Your task to perform on an android device: open app "Google Duo" Image 0: 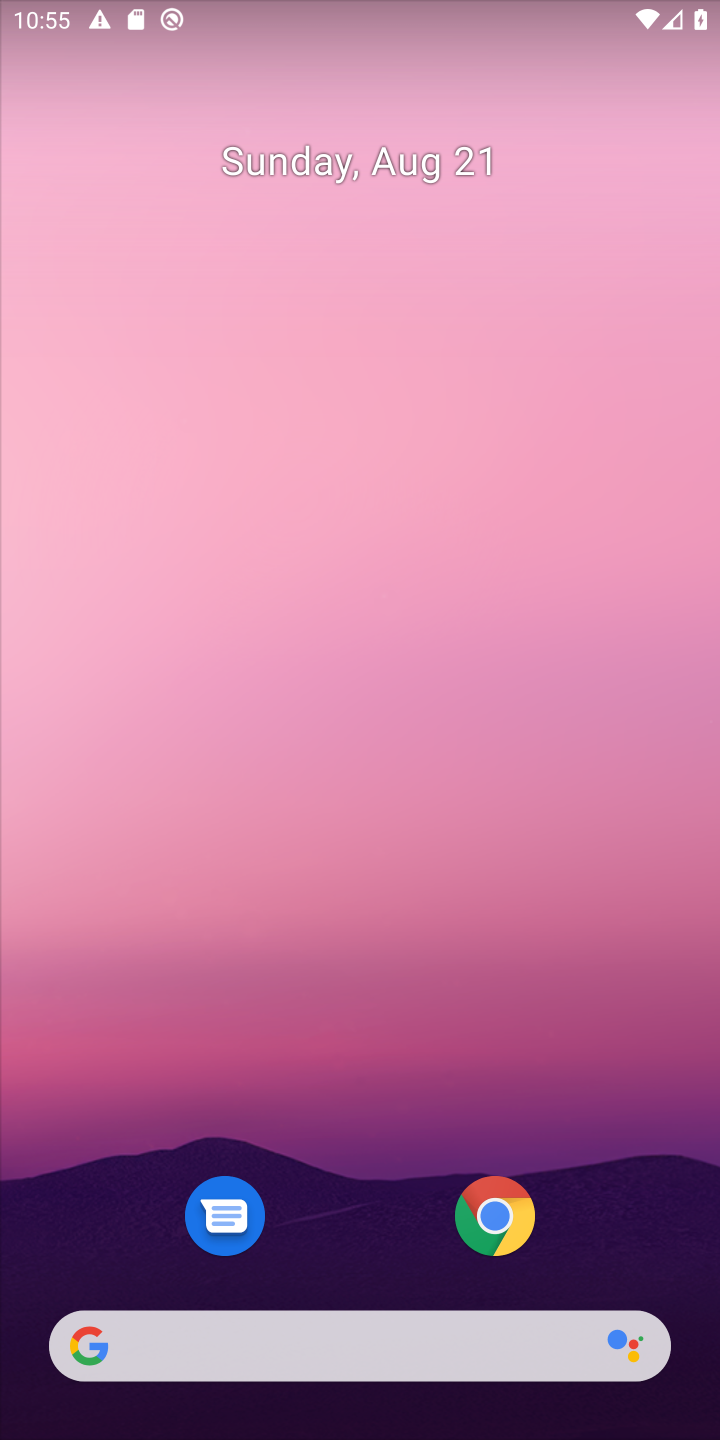
Step 0: drag from (415, 1281) to (224, 221)
Your task to perform on an android device: open app "Google Duo" Image 1: 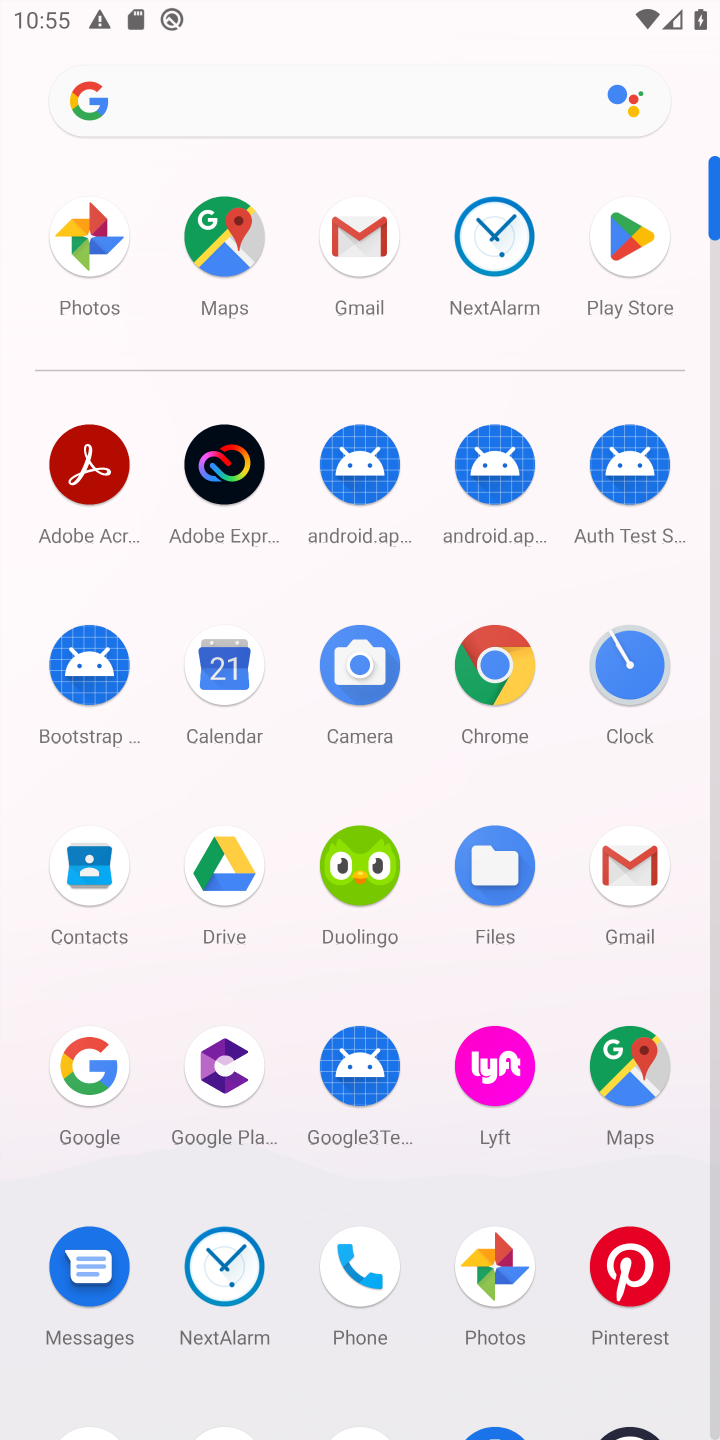
Step 1: click (600, 240)
Your task to perform on an android device: open app "Google Duo" Image 2: 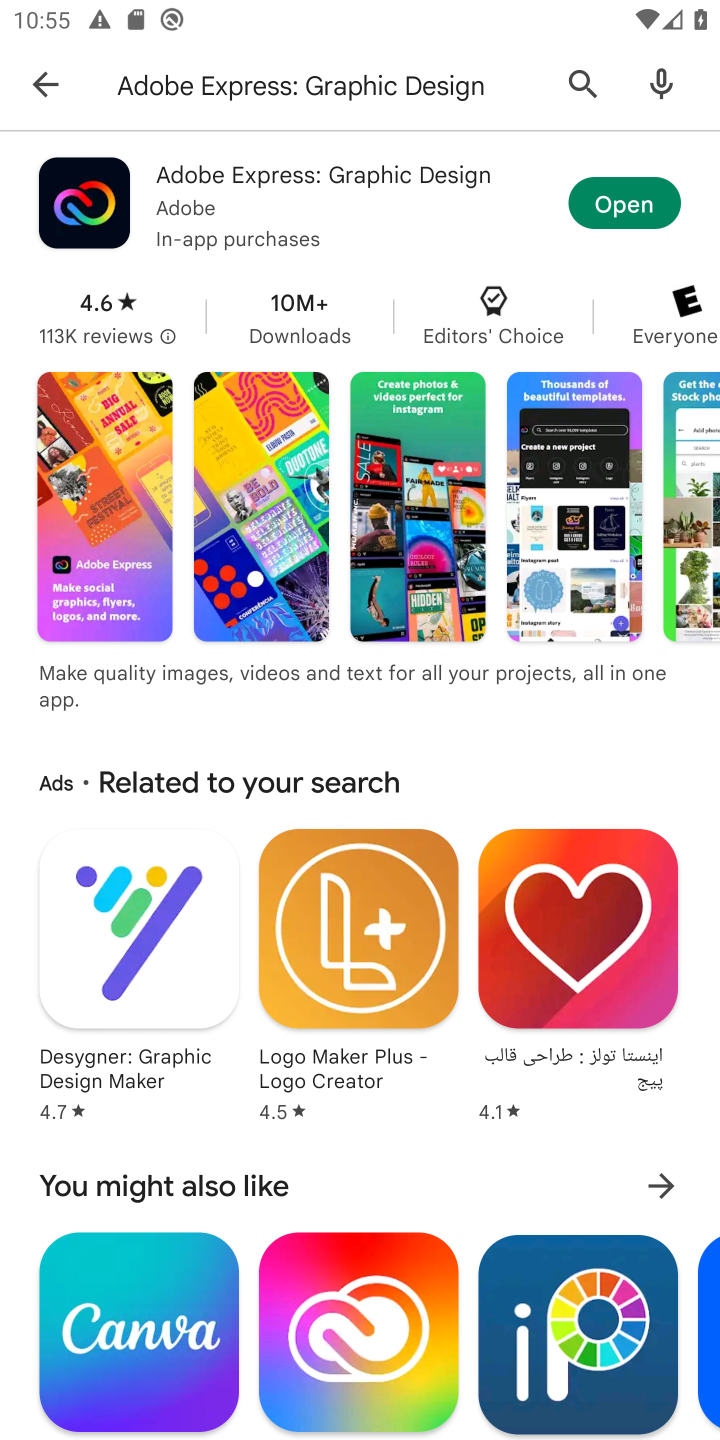
Step 2: press back button
Your task to perform on an android device: open app "Google Duo" Image 3: 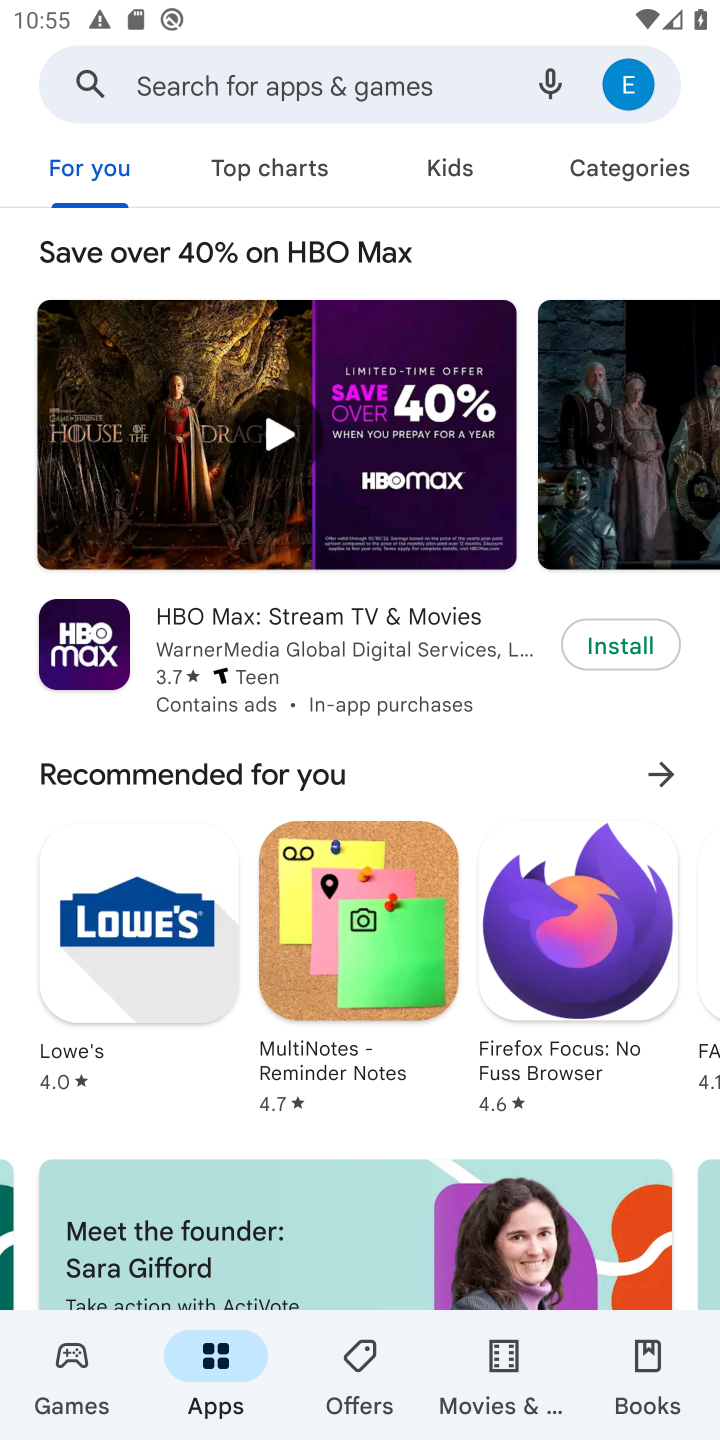
Step 3: click (234, 100)
Your task to perform on an android device: open app "Google Duo" Image 4: 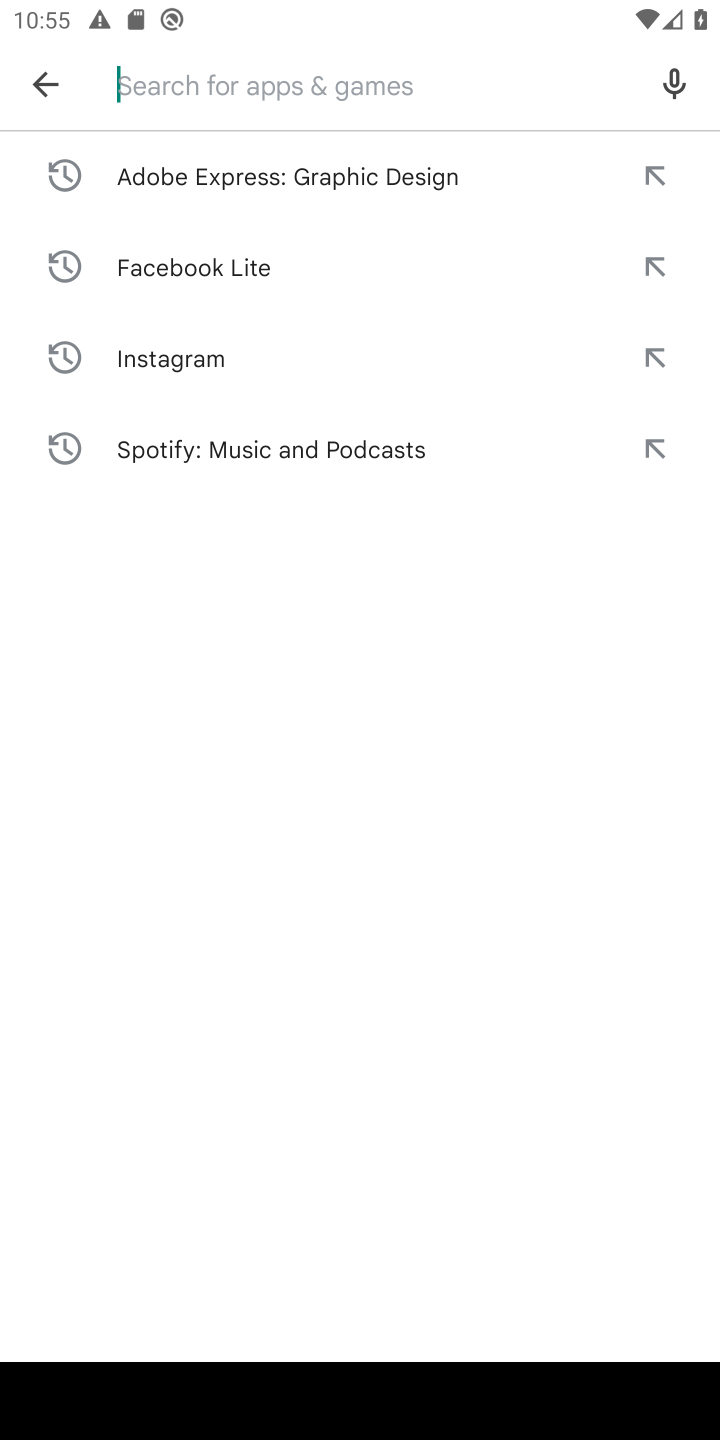
Step 4: type "Google Duo"
Your task to perform on an android device: open app "Google Duo" Image 5: 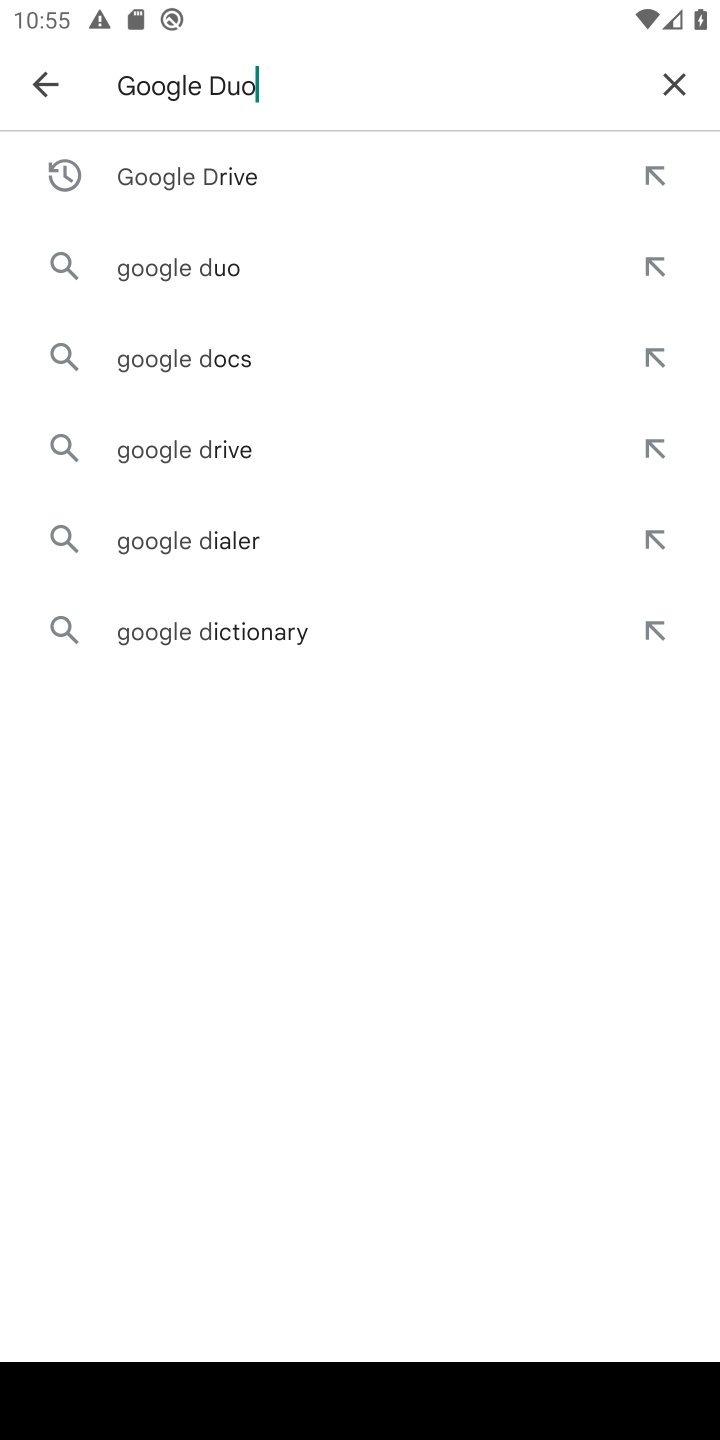
Step 5: press enter
Your task to perform on an android device: open app "Google Duo" Image 6: 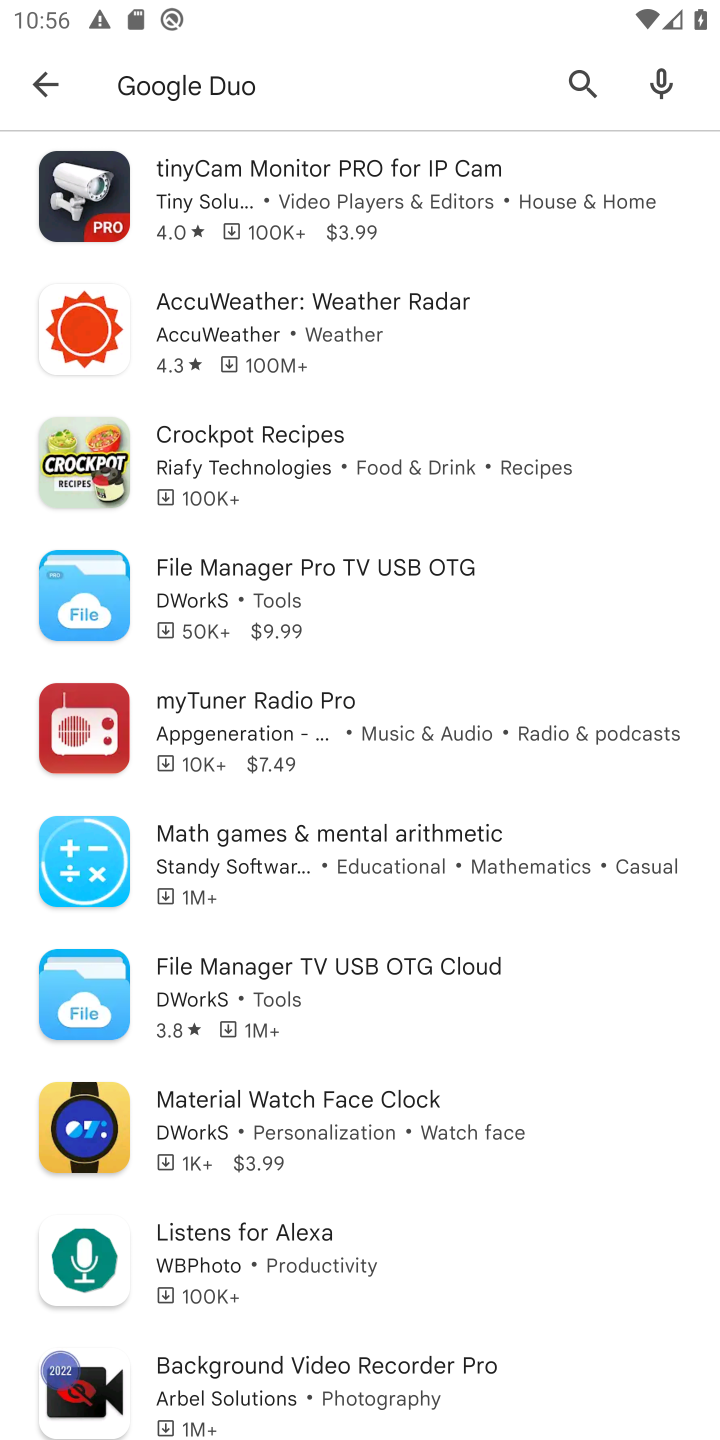
Step 6: task complete